Your task to perform on an android device: Open location settings Image 0: 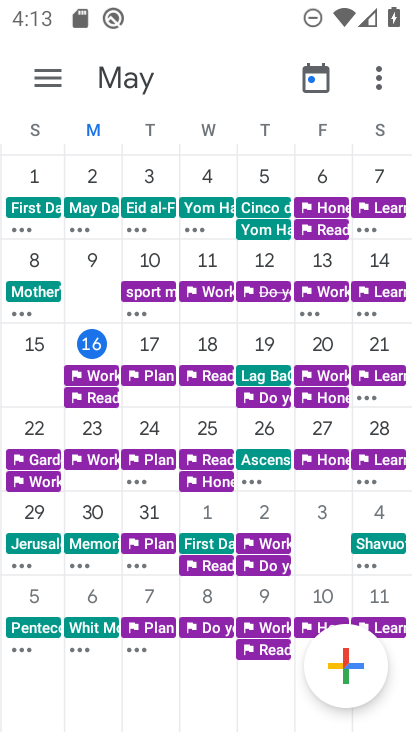
Step 0: press home button
Your task to perform on an android device: Open location settings Image 1: 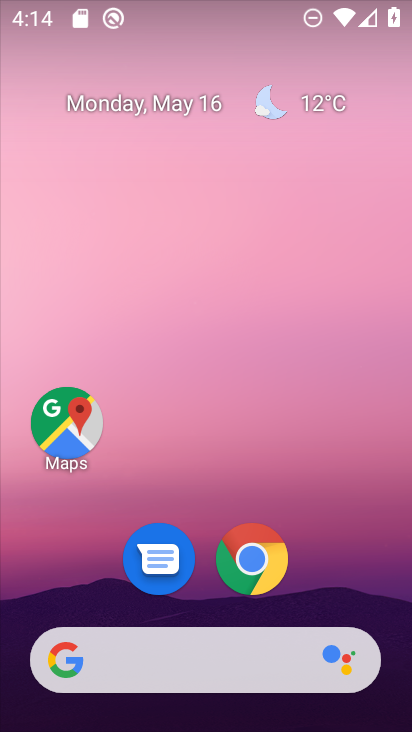
Step 1: drag from (344, 578) to (335, 96)
Your task to perform on an android device: Open location settings Image 2: 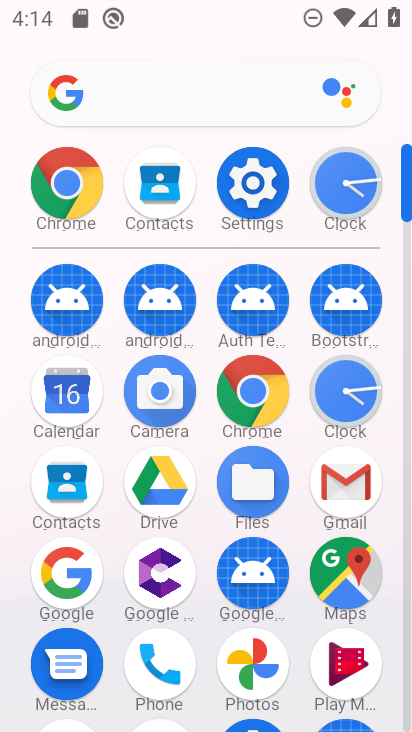
Step 2: click (237, 193)
Your task to perform on an android device: Open location settings Image 3: 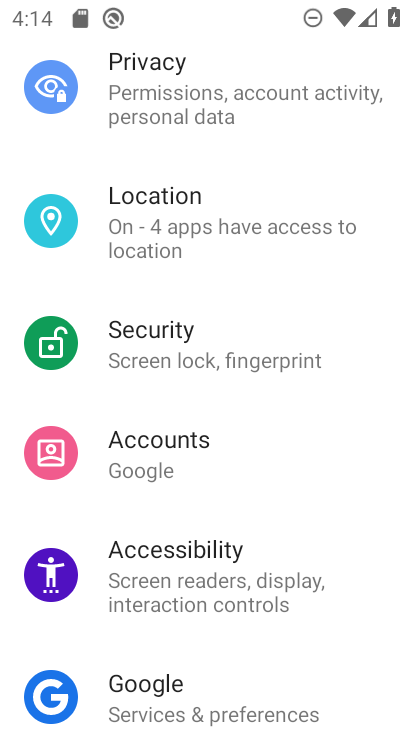
Step 3: click (227, 209)
Your task to perform on an android device: Open location settings Image 4: 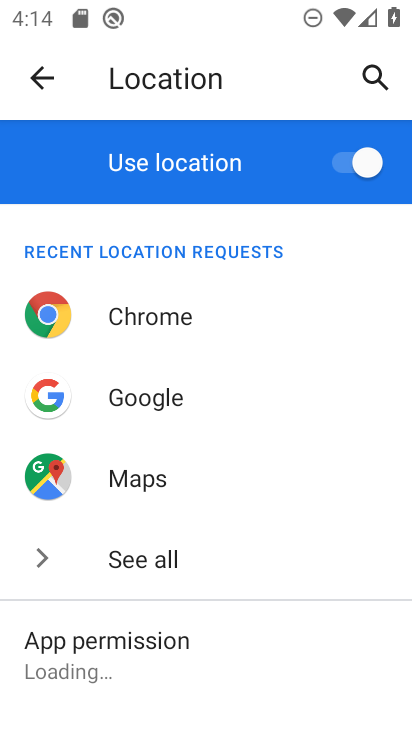
Step 4: drag from (177, 382) to (153, 151)
Your task to perform on an android device: Open location settings Image 5: 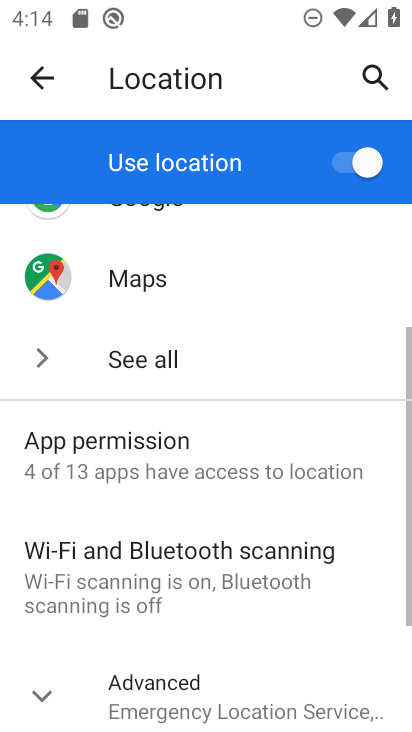
Step 5: drag from (141, 550) to (141, 326)
Your task to perform on an android device: Open location settings Image 6: 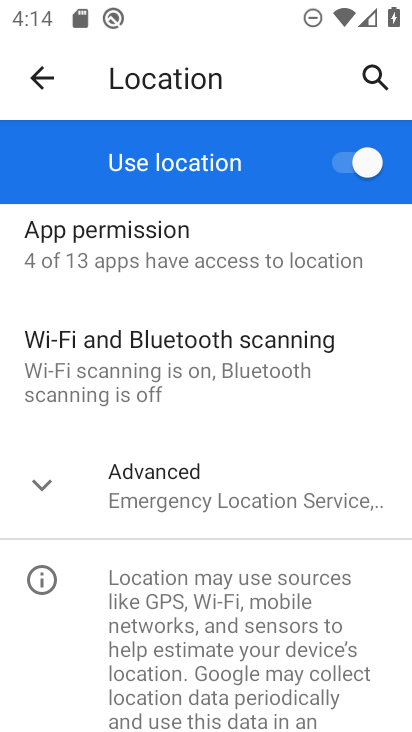
Step 6: click (122, 442)
Your task to perform on an android device: Open location settings Image 7: 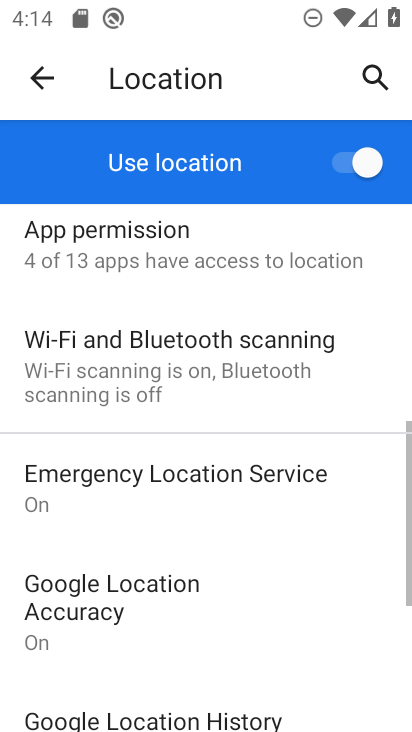
Step 7: task complete